Your task to perform on an android device: Open internet settings Image 0: 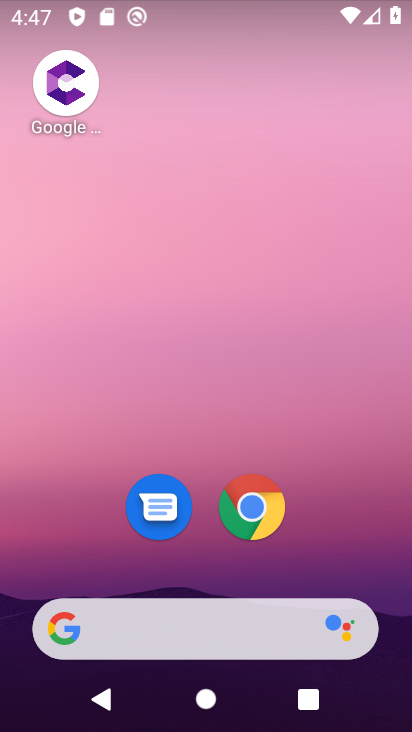
Step 0: drag from (330, 490) to (336, 74)
Your task to perform on an android device: Open internet settings Image 1: 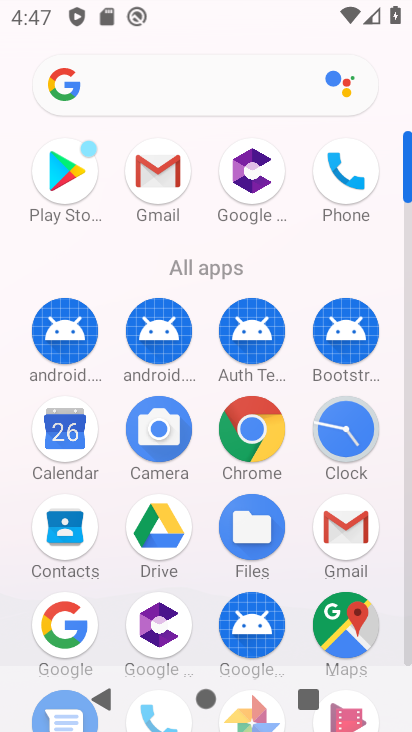
Step 1: drag from (207, 571) to (270, 171)
Your task to perform on an android device: Open internet settings Image 2: 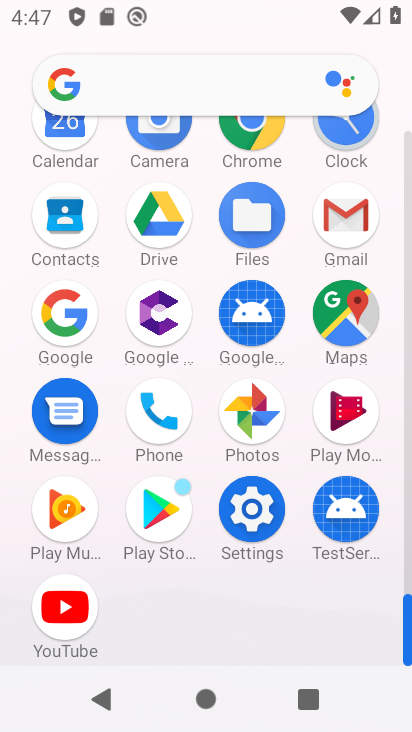
Step 2: click (254, 519)
Your task to perform on an android device: Open internet settings Image 3: 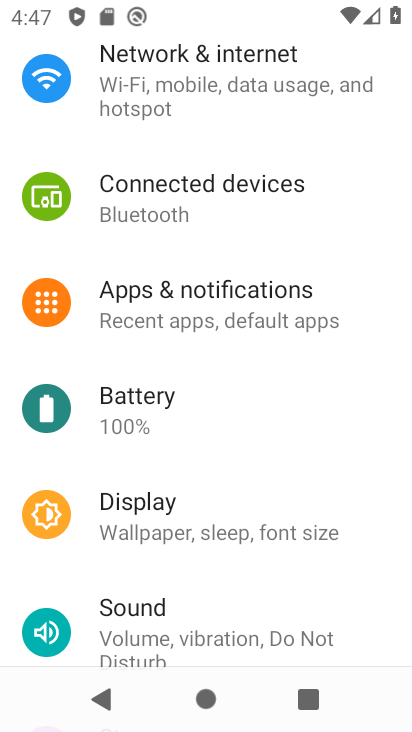
Step 3: drag from (268, 375) to (238, 609)
Your task to perform on an android device: Open internet settings Image 4: 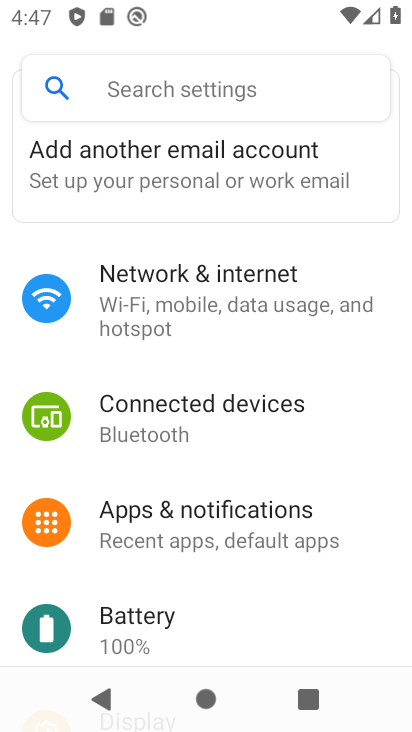
Step 4: click (235, 288)
Your task to perform on an android device: Open internet settings Image 5: 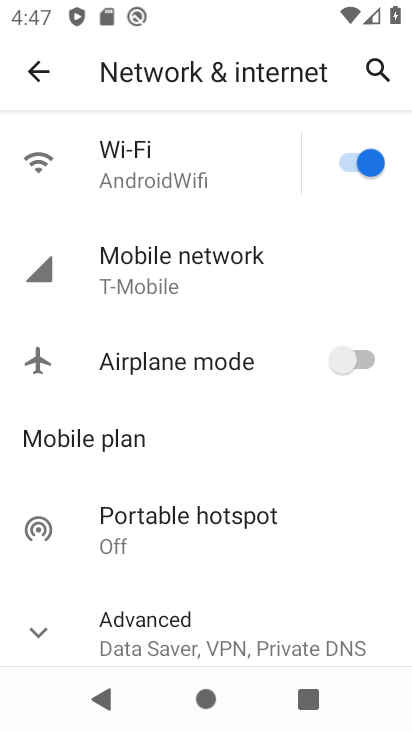
Step 5: drag from (236, 457) to (323, 71)
Your task to perform on an android device: Open internet settings Image 6: 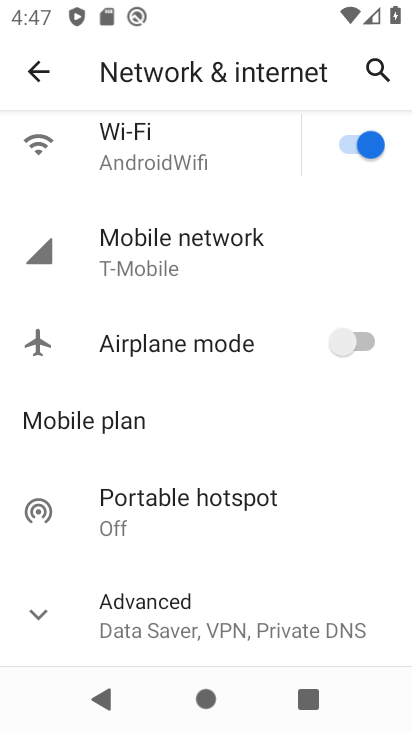
Step 6: click (167, 608)
Your task to perform on an android device: Open internet settings Image 7: 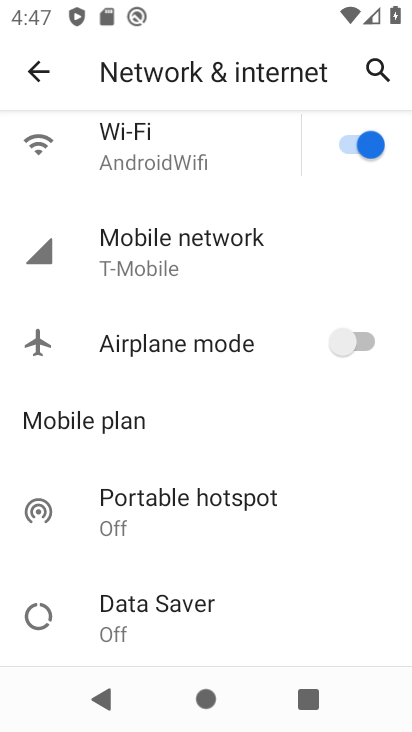
Step 7: task complete